Your task to perform on an android device: Show me recent news Image 0: 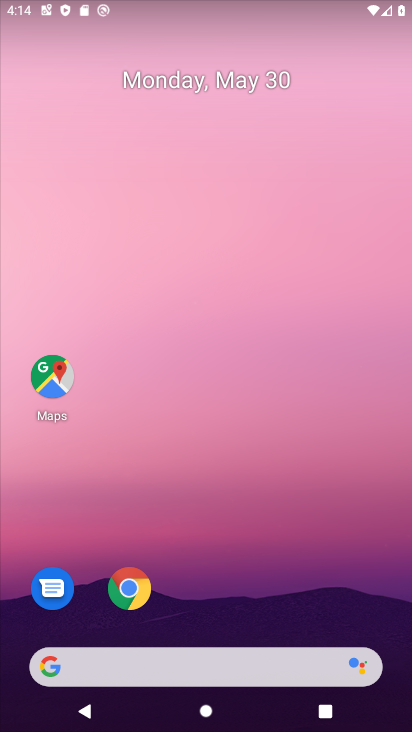
Step 0: click (142, 663)
Your task to perform on an android device: Show me recent news Image 1: 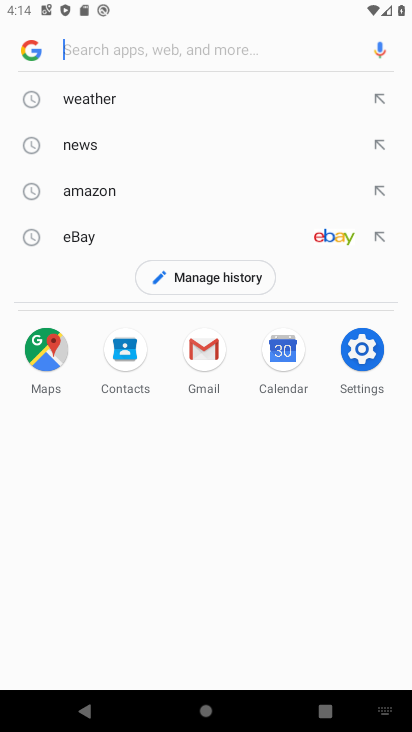
Step 1: type "recent news"
Your task to perform on an android device: Show me recent news Image 2: 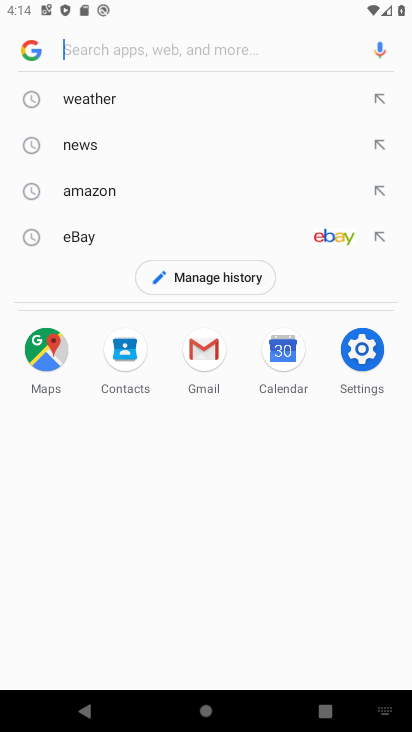
Step 2: click (184, 49)
Your task to perform on an android device: Show me recent news Image 3: 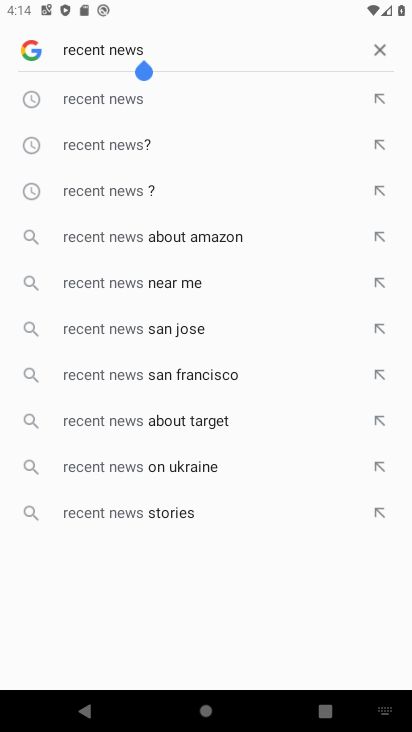
Step 3: click (145, 94)
Your task to perform on an android device: Show me recent news Image 4: 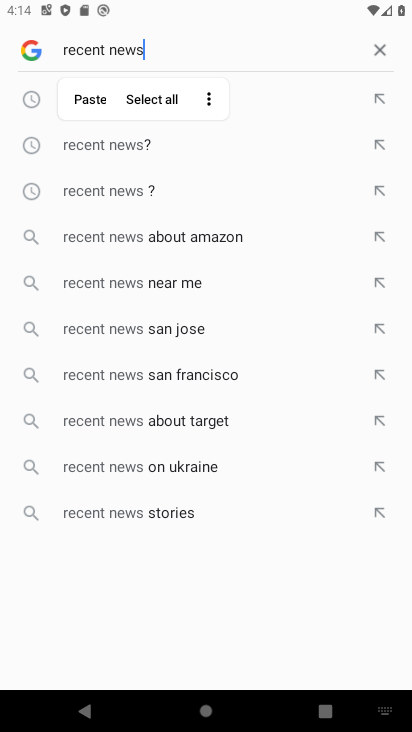
Step 4: click (219, 42)
Your task to perform on an android device: Show me recent news Image 5: 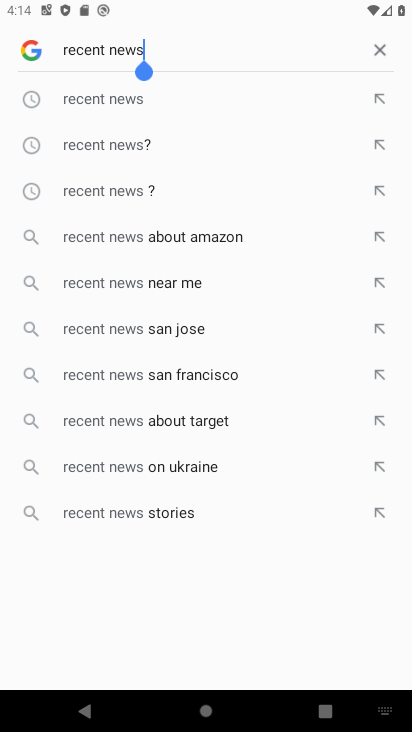
Step 5: click (82, 96)
Your task to perform on an android device: Show me recent news Image 6: 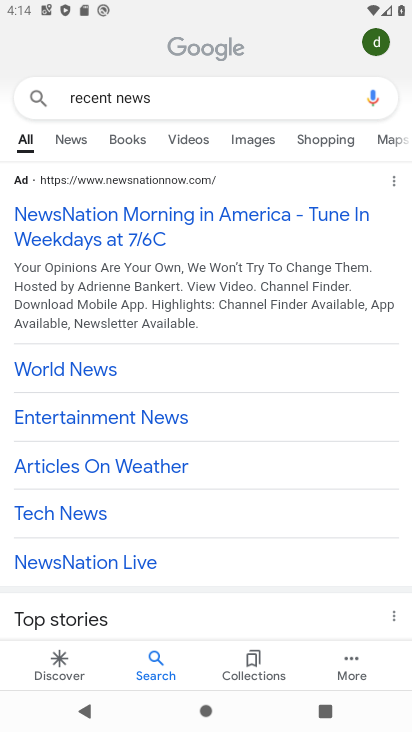
Step 6: task complete